Your task to perform on an android device: Open Maps and search for coffee Image 0: 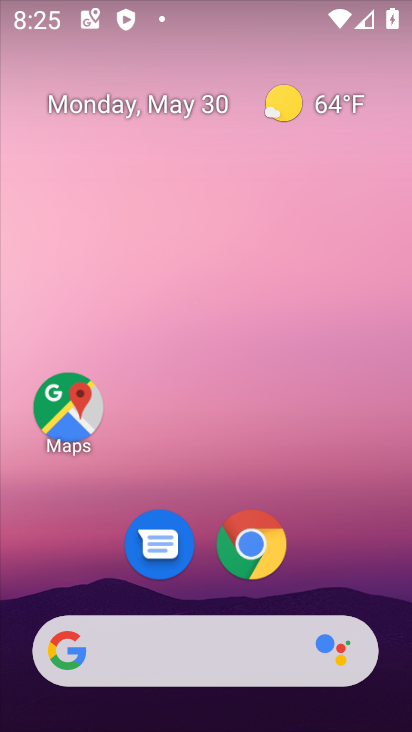
Step 0: drag from (215, 581) to (312, 64)
Your task to perform on an android device: Open Maps and search for coffee Image 1: 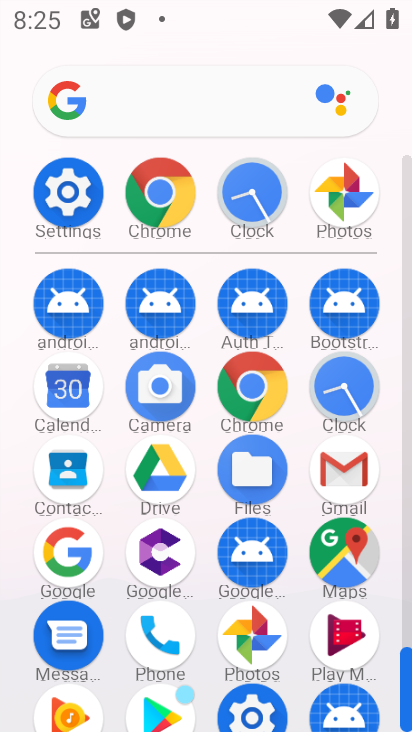
Step 1: click (353, 558)
Your task to perform on an android device: Open Maps and search for coffee Image 2: 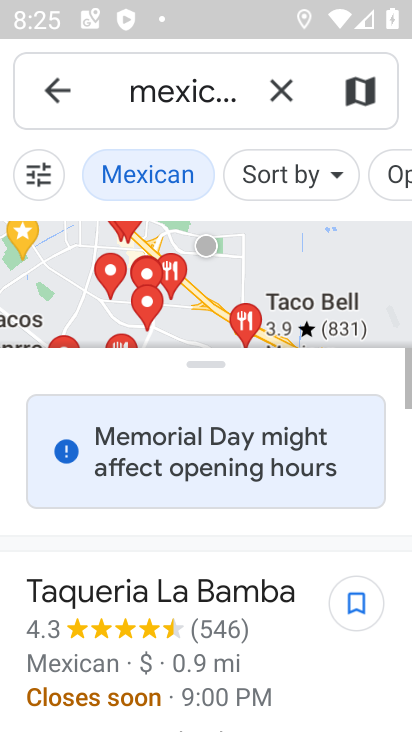
Step 2: click (286, 94)
Your task to perform on an android device: Open Maps and search for coffee Image 3: 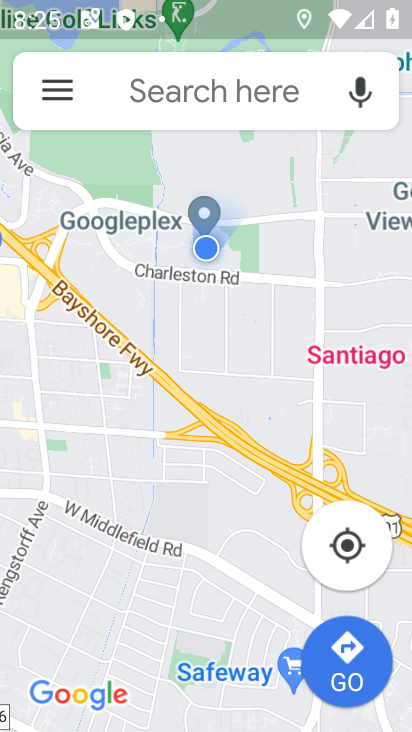
Step 3: click (178, 95)
Your task to perform on an android device: Open Maps and search for coffee Image 4: 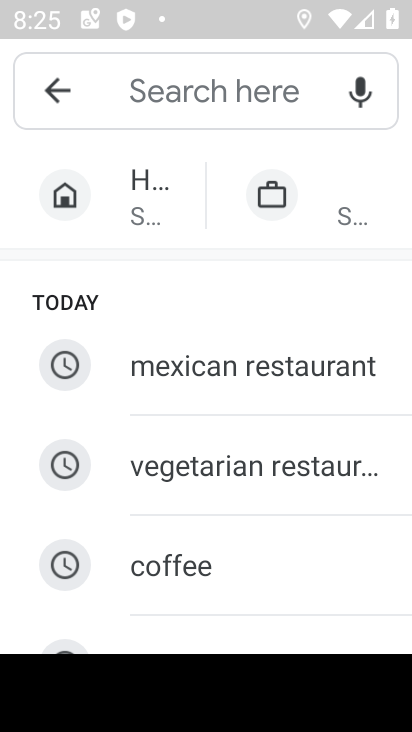
Step 4: click (264, 576)
Your task to perform on an android device: Open Maps and search for coffee Image 5: 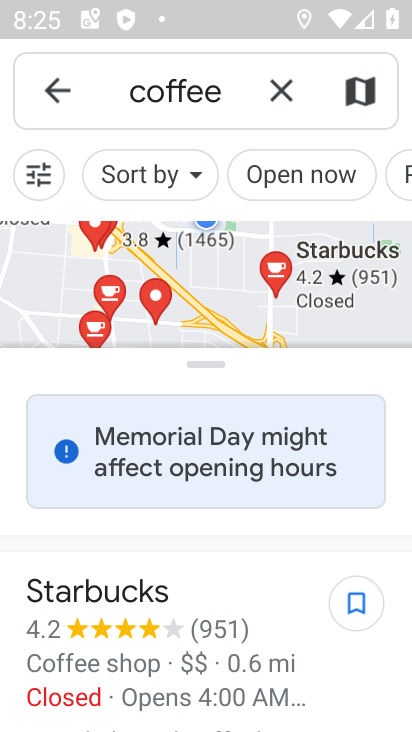
Step 5: task complete